Your task to perform on an android device: Add "apple airpods pro" to the cart on costco.com Image 0: 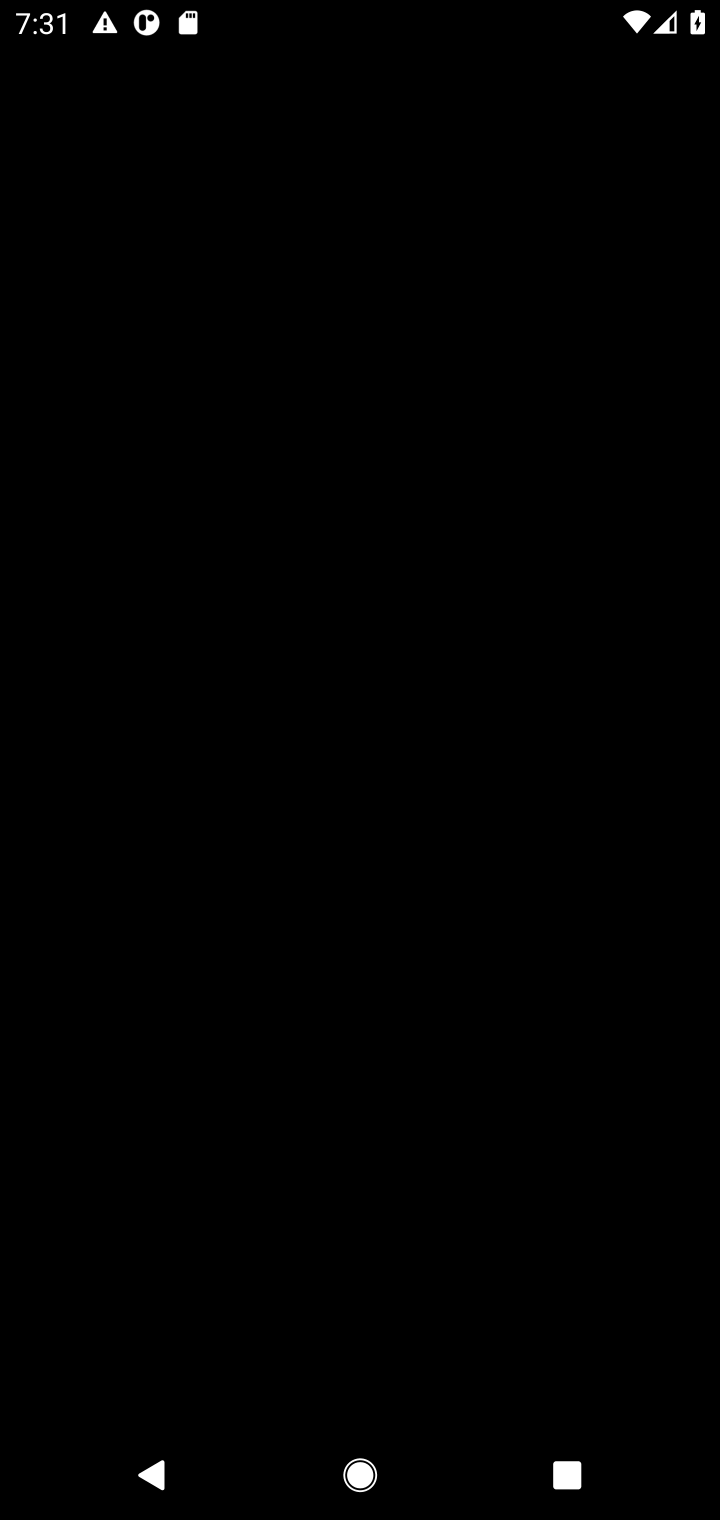
Step 0: press home button
Your task to perform on an android device: Add "apple airpods pro" to the cart on costco.com Image 1: 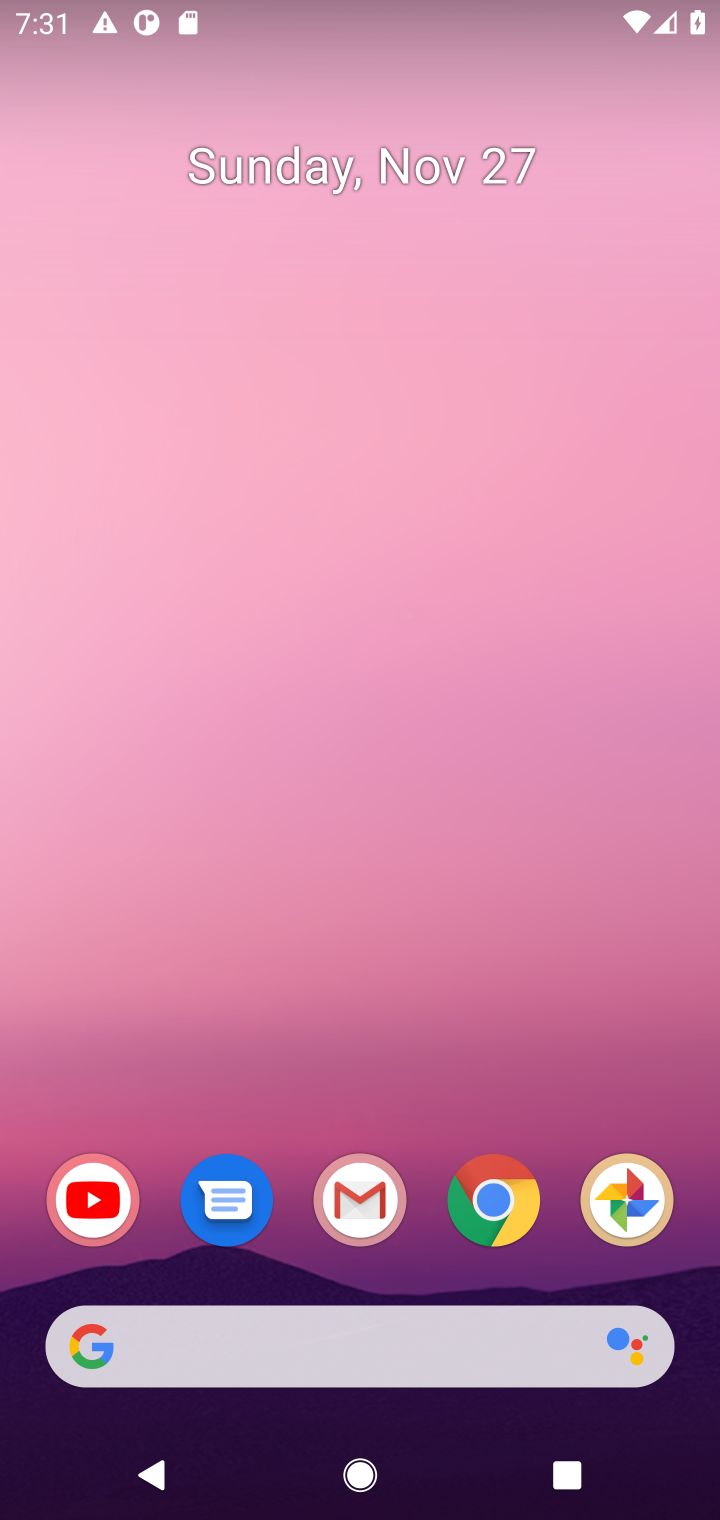
Step 1: click (487, 1206)
Your task to perform on an android device: Add "apple airpods pro" to the cart on costco.com Image 2: 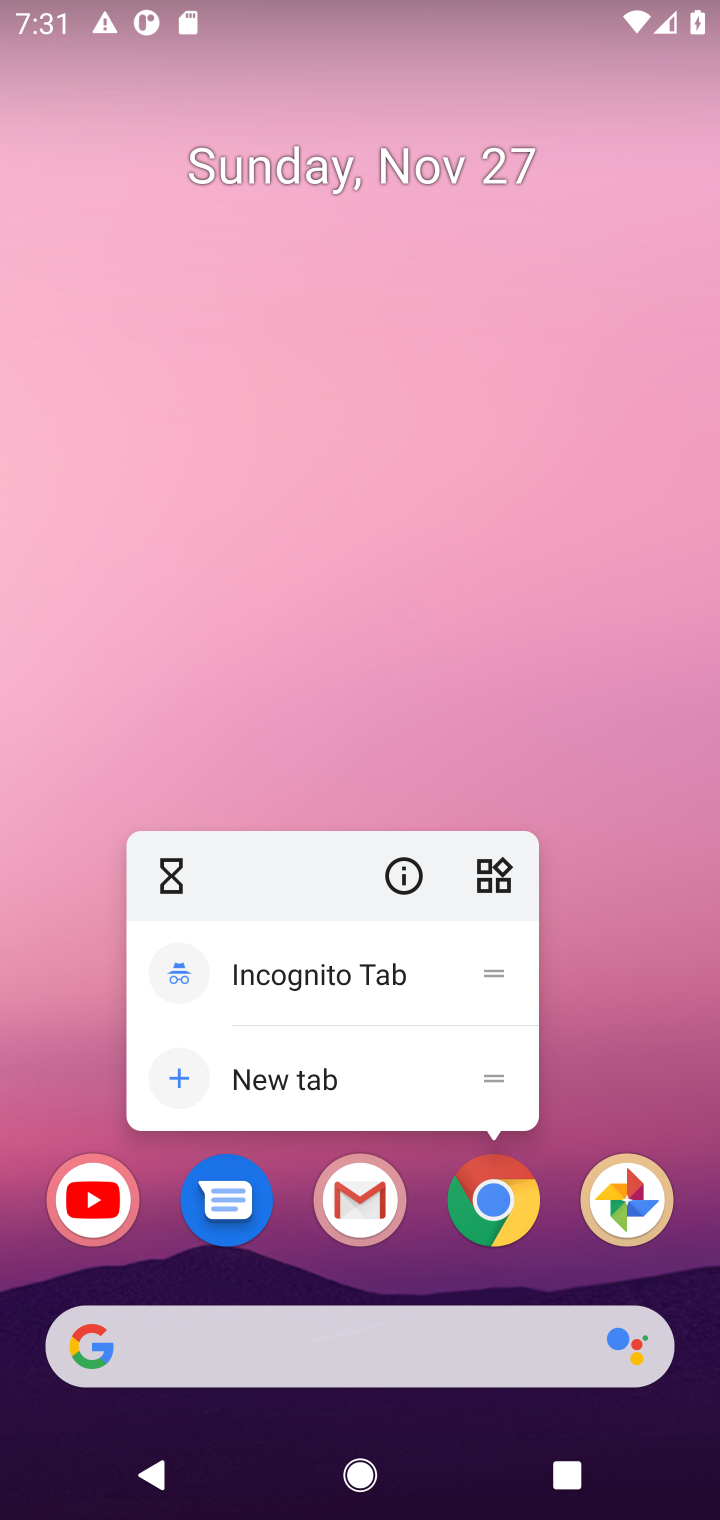
Step 2: click (499, 1204)
Your task to perform on an android device: Add "apple airpods pro" to the cart on costco.com Image 3: 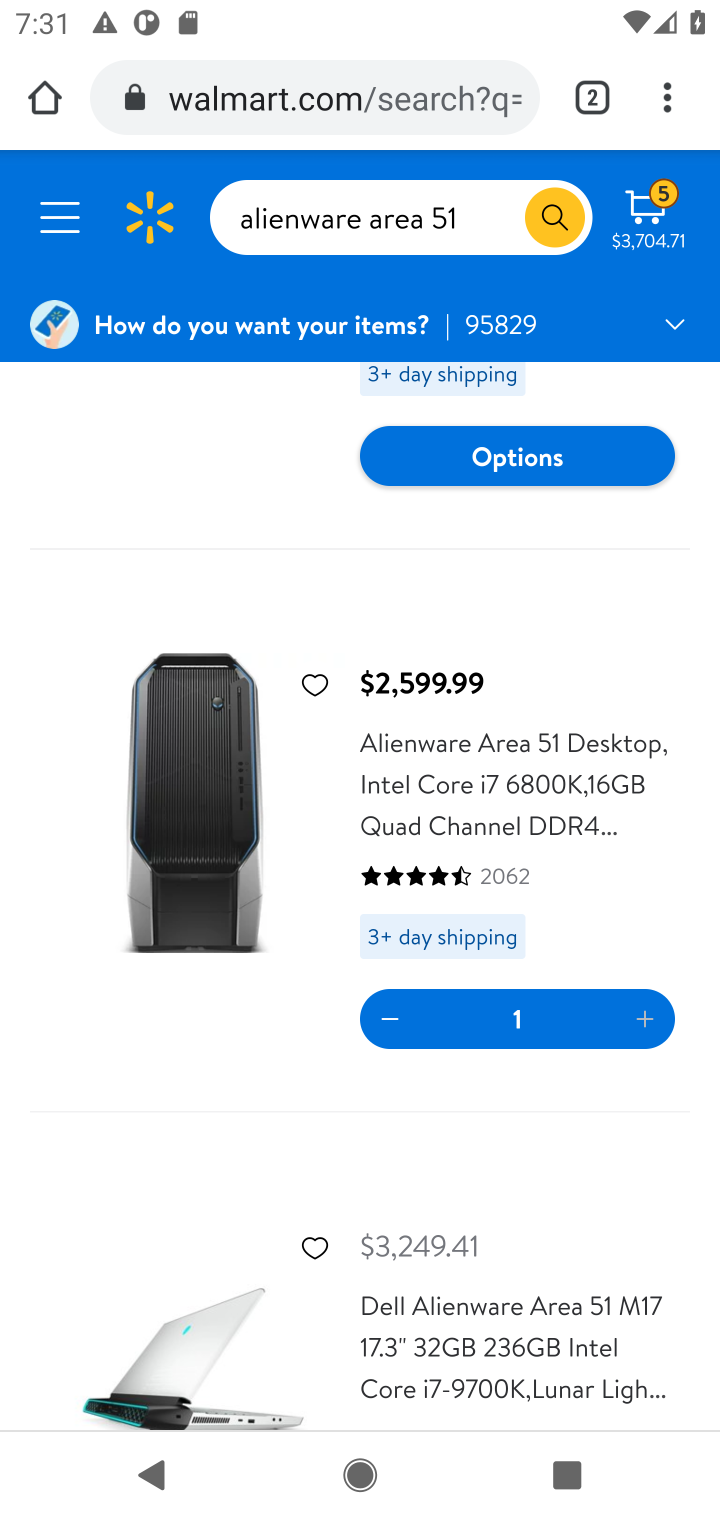
Step 3: click (340, 95)
Your task to perform on an android device: Add "apple airpods pro" to the cart on costco.com Image 4: 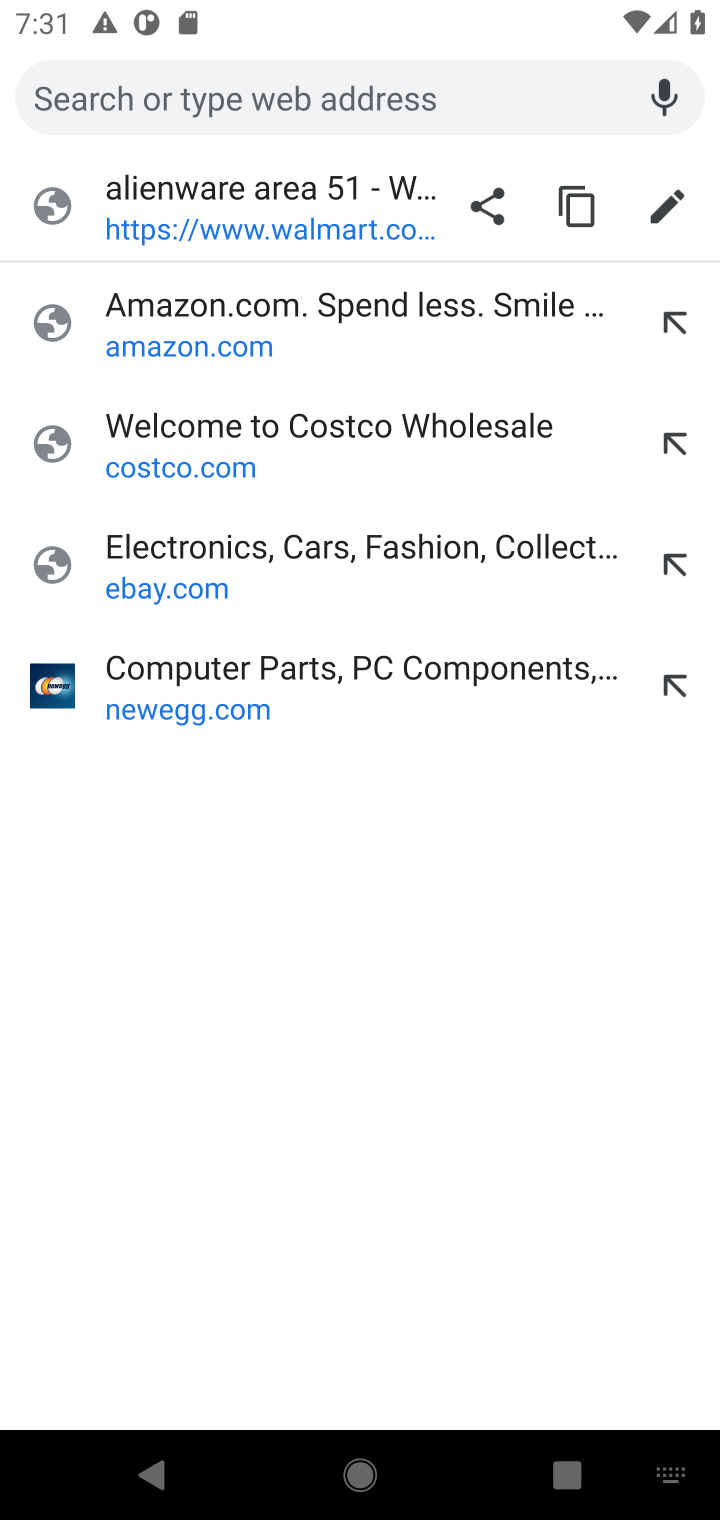
Step 4: click (164, 465)
Your task to perform on an android device: Add "apple airpods pro" to the cart on costco.com Image 5: 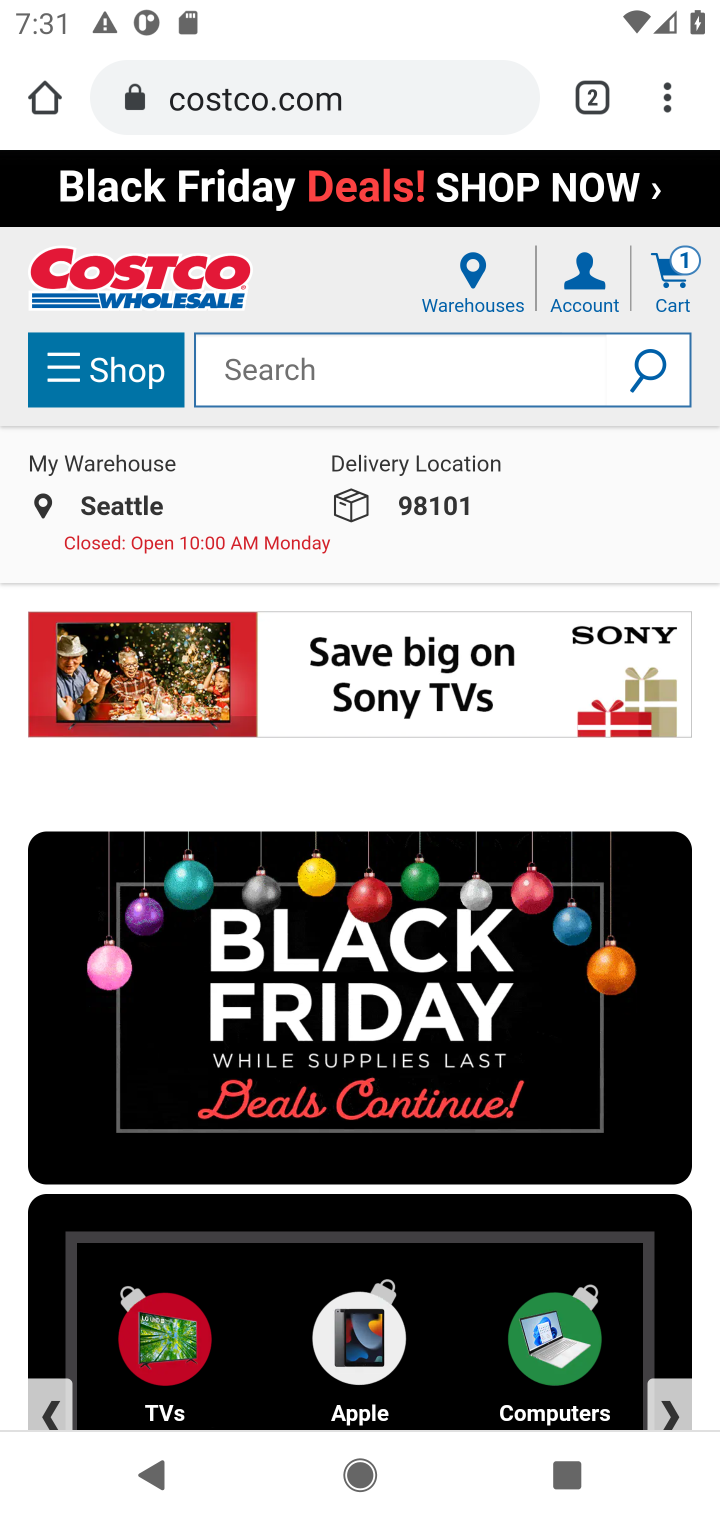
Step 5: click (331, 359)
Your task to perform on an android device: Add "apple airpods pro" to the cart on costco.com Image 6: 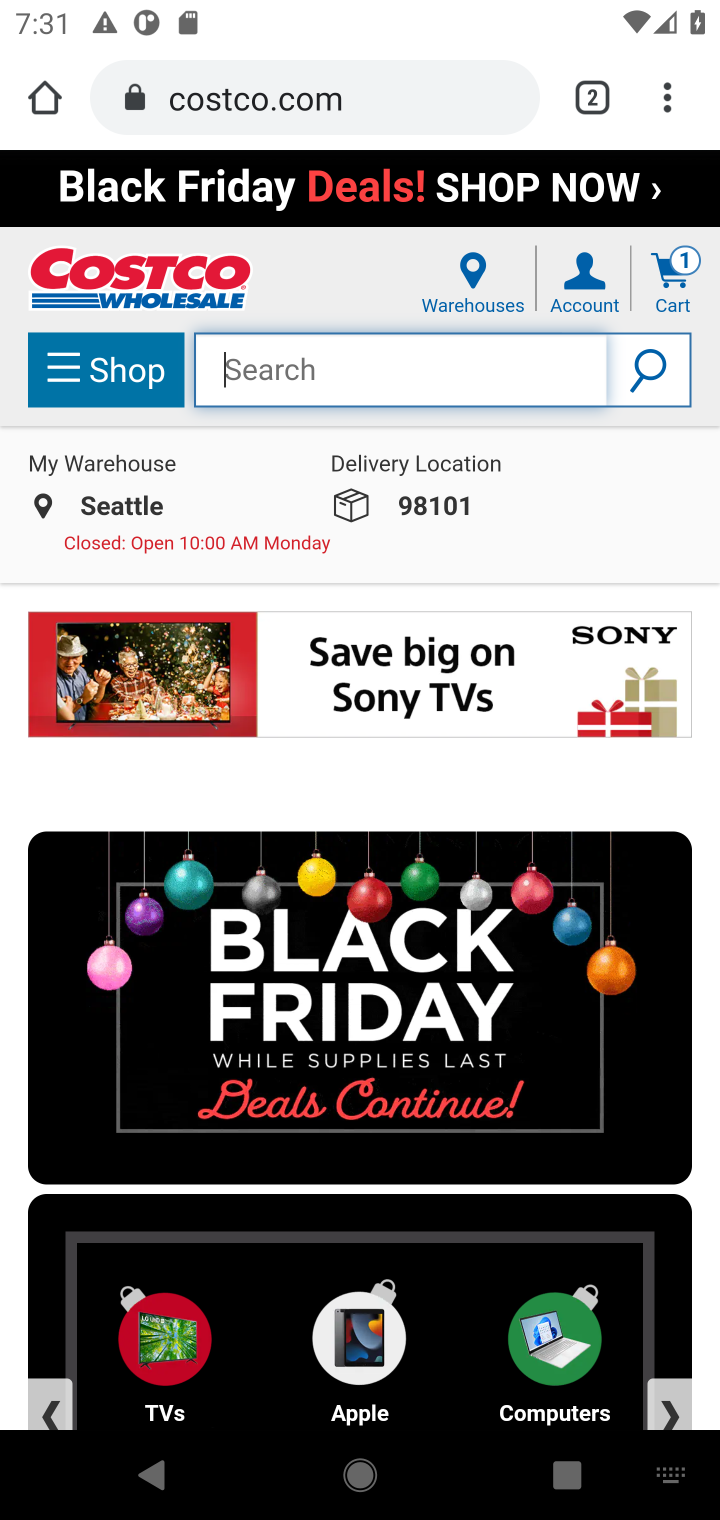
Step 6: type "apple airpods pro"
Your task to perform on an android device: Add "apple airpods pro" to the cart on costco.com Image 7: 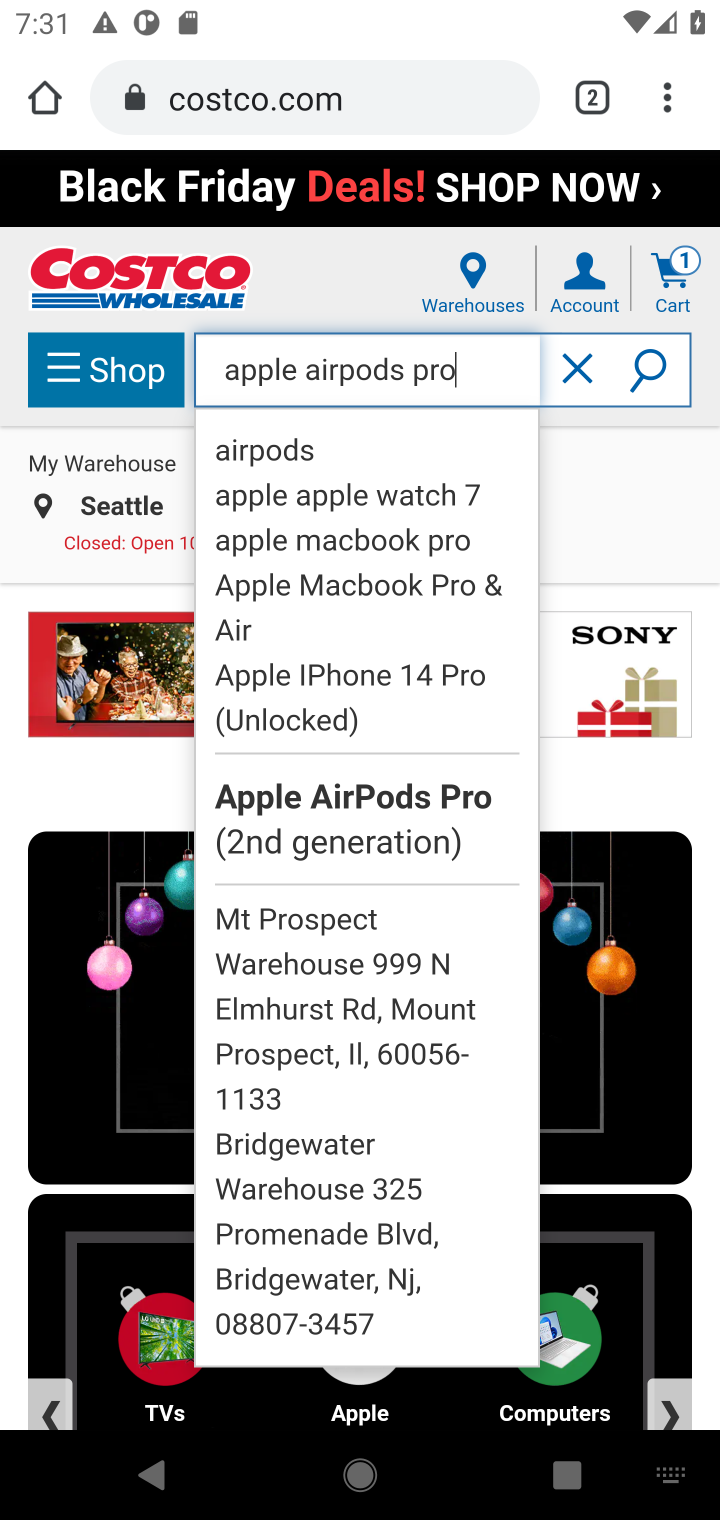
Step 7: click (648, 361)
Your task to perform on an android device: Add "apple airpods pro" to the cart on costco.com Image 8: 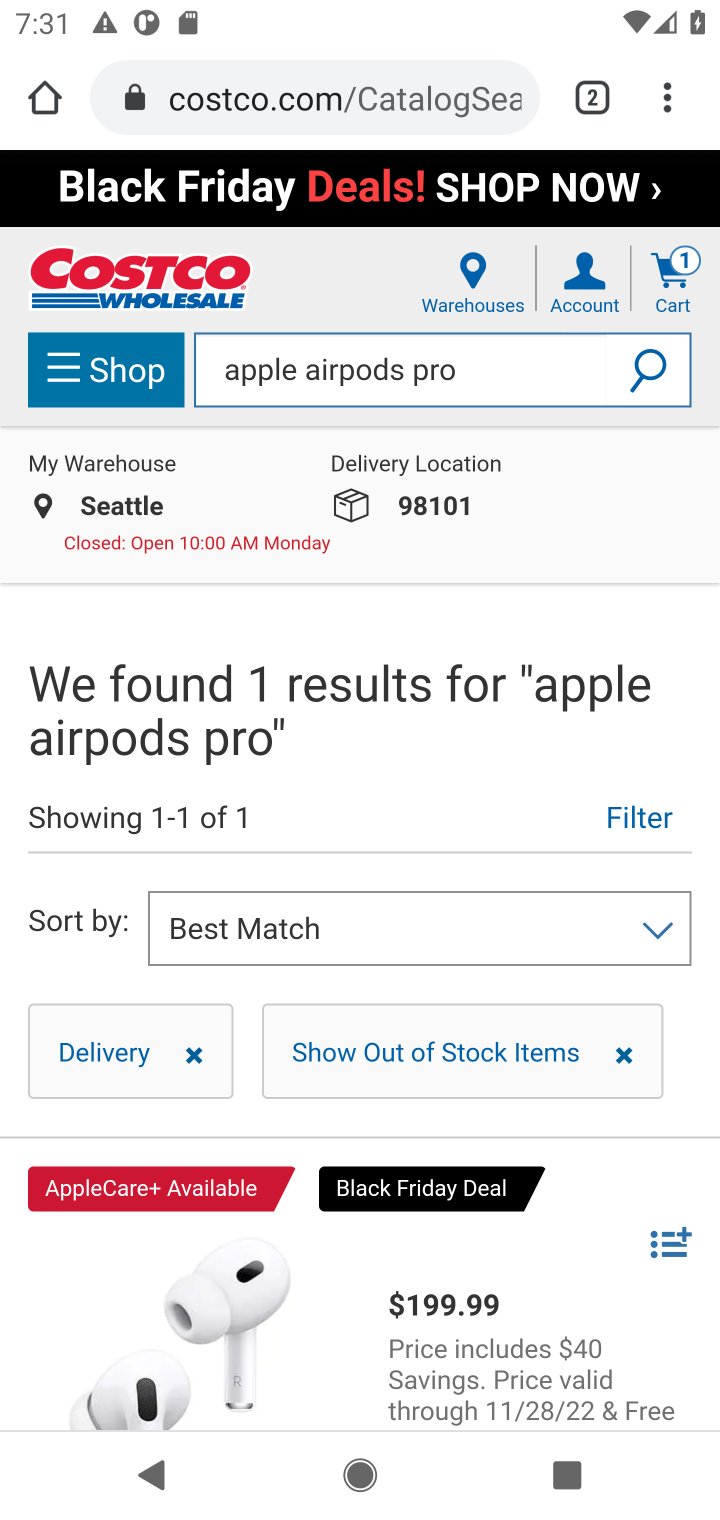
Step 8: drag from (194, 1140) to (196, 644)
Your task to perform on an android device: Add "apple airpods pro" to the cart on costco.com Image 9: 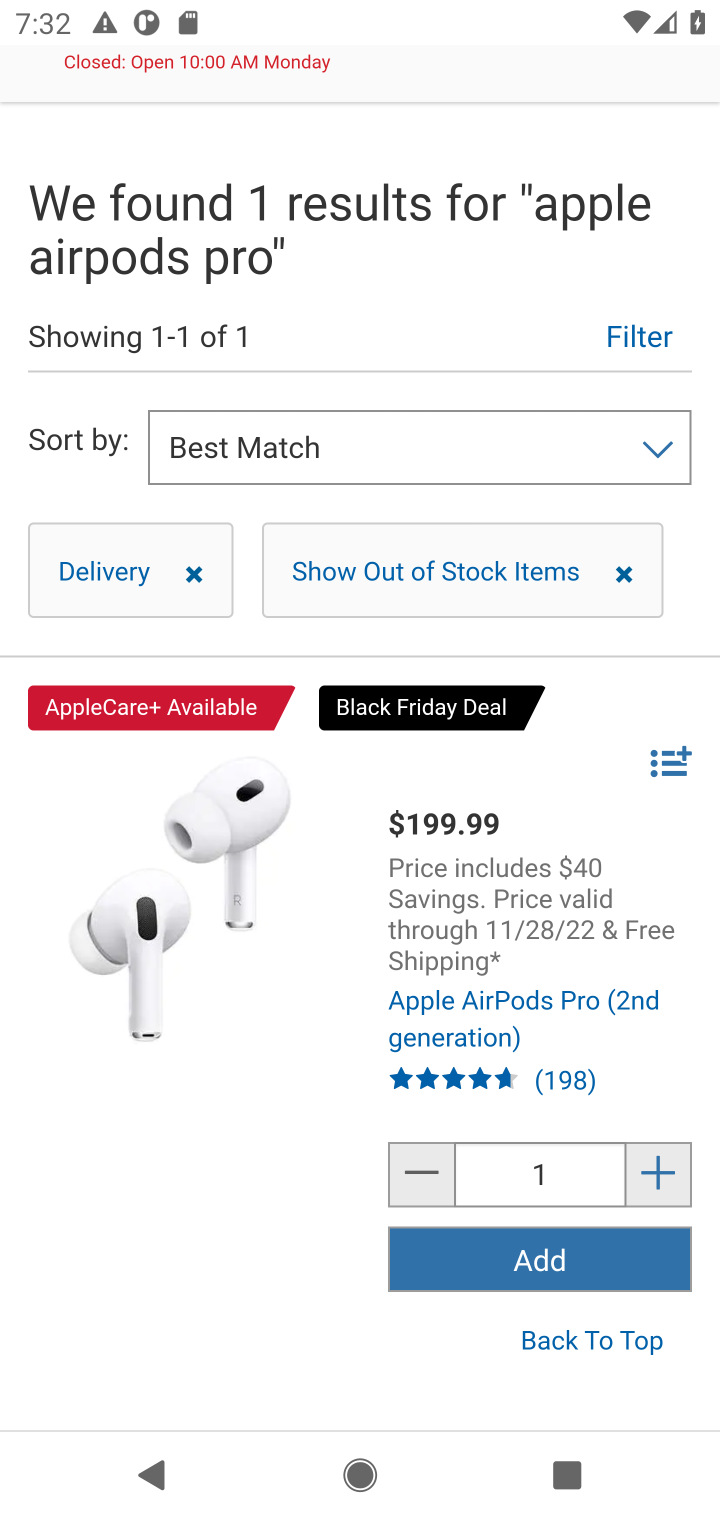
Step 9: drag from (206, 1133) to (233, 598)
Your task to perform on an android device: Add "apple airpods pro" to the cart on costco.com Image 10: 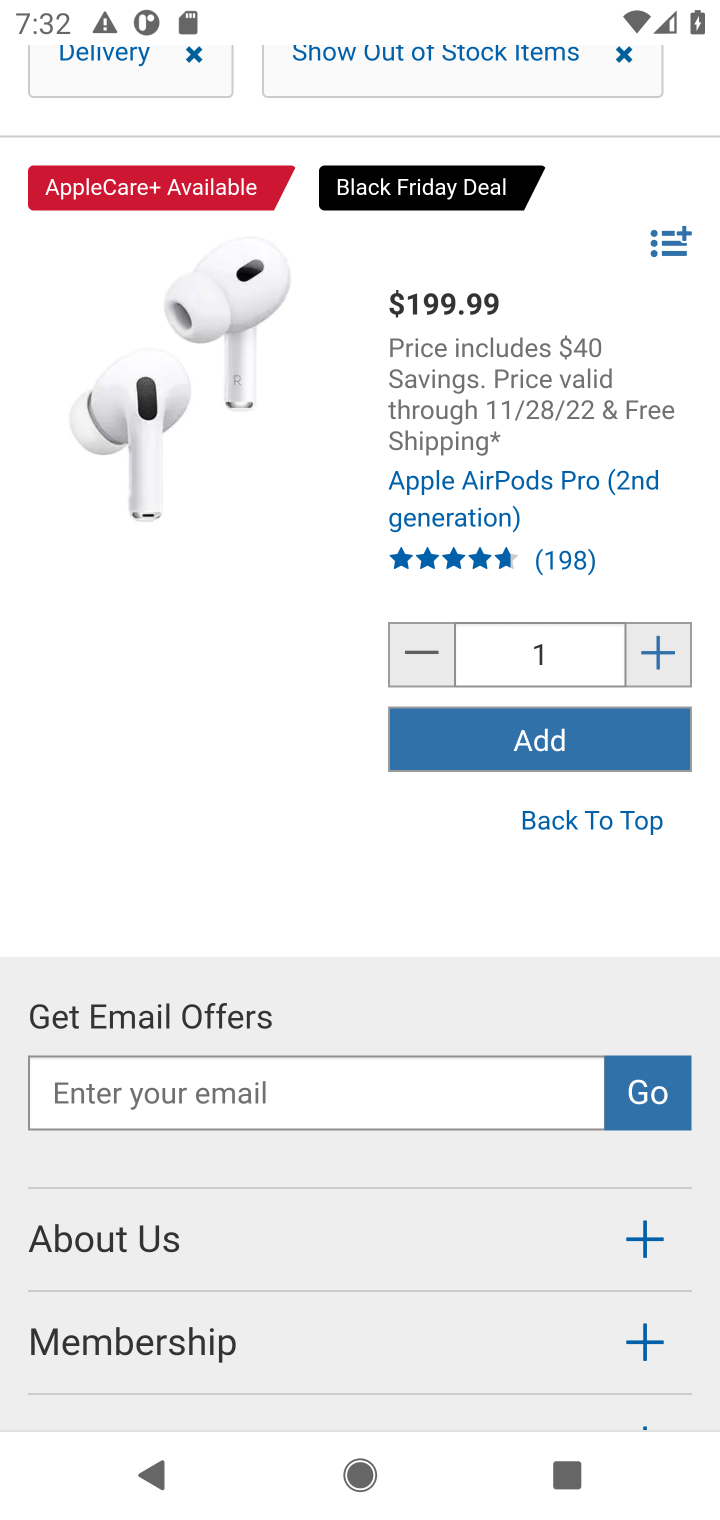
Step 10: click (491, 736)
Your task to perform on an android device: Add "apple airpods pro" to the cart on costco.com Image 11: 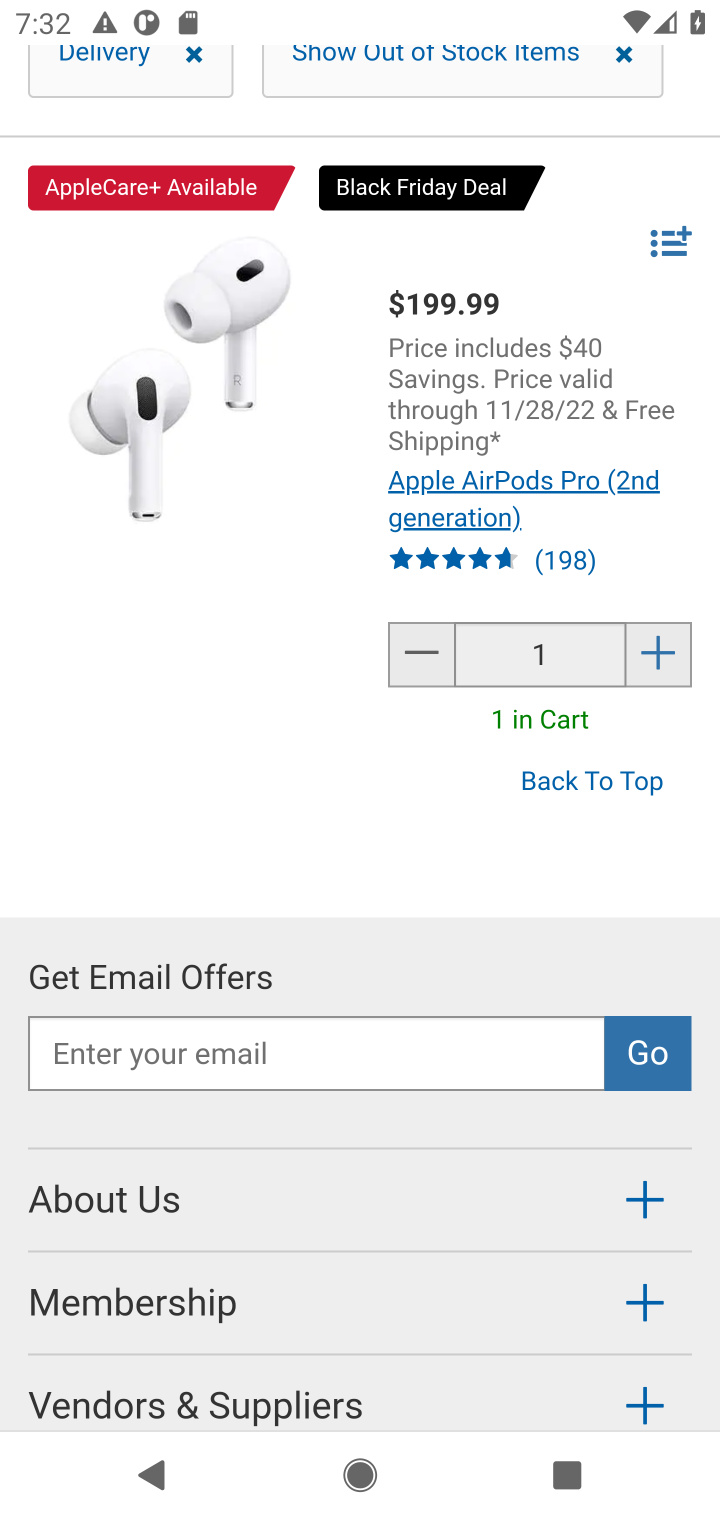
Step 11: task complete